Your task to perform on an android device: Go to eBay Image 0: 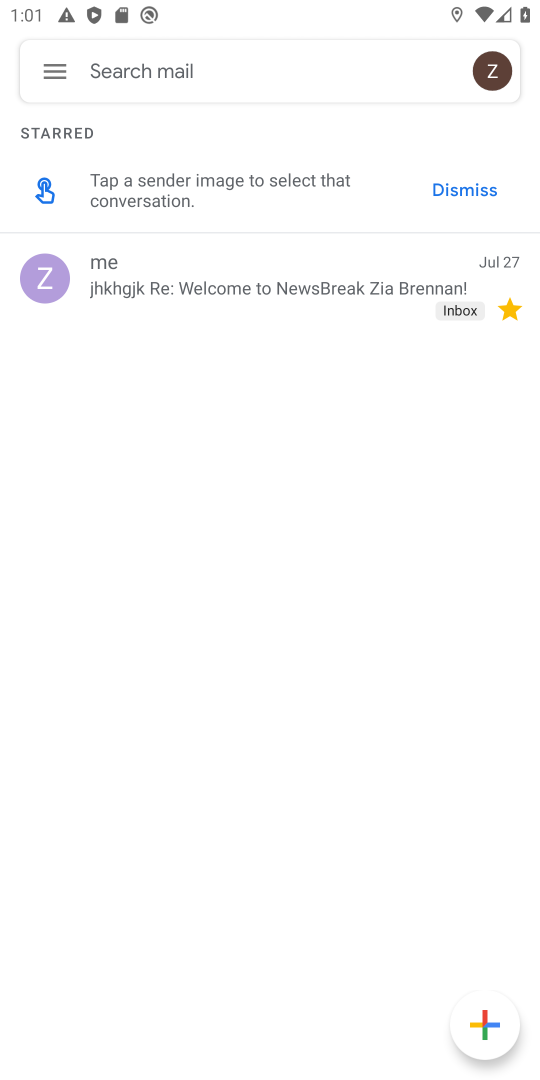
Step 0: press home button
Your task to perform on an android device: Go to eBay Image 1: 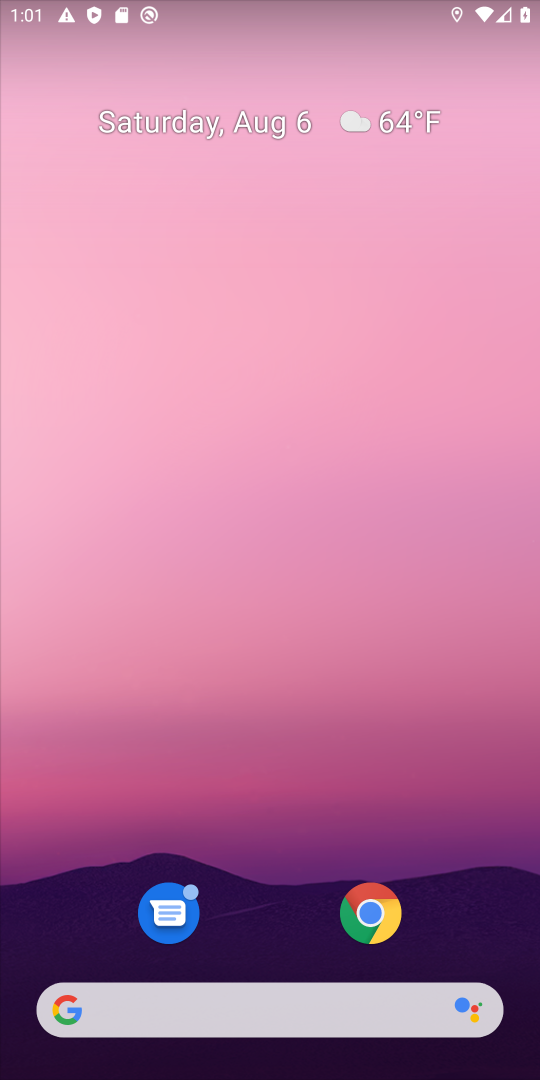
Step 1: drag from (441, 915) to (474, 244)
Your task to perform on an android device: Go to eBay Image 2: 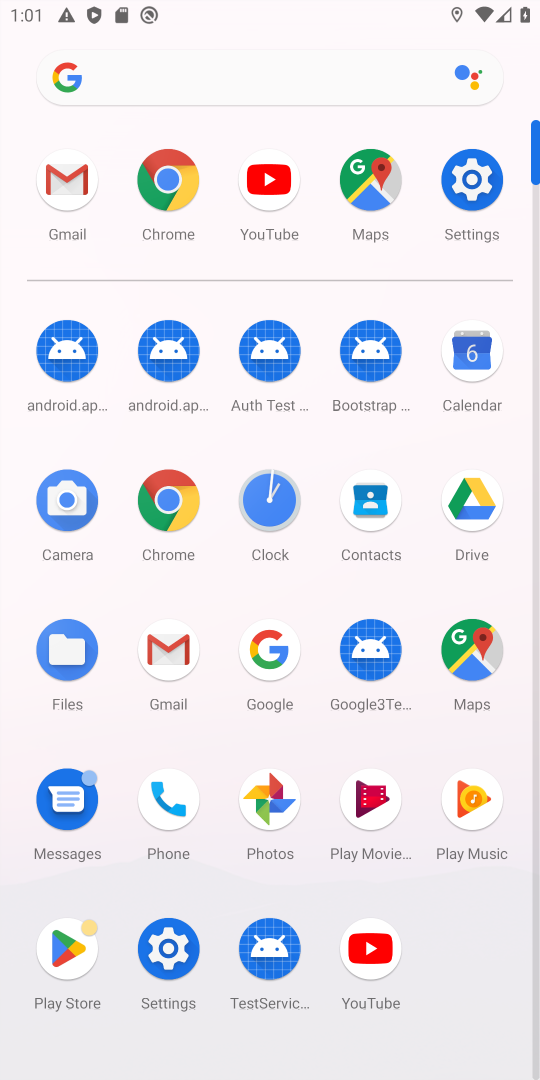
Step 2: click (167, 500)
Your task to perform on an android device: Go to eBay Image 3: 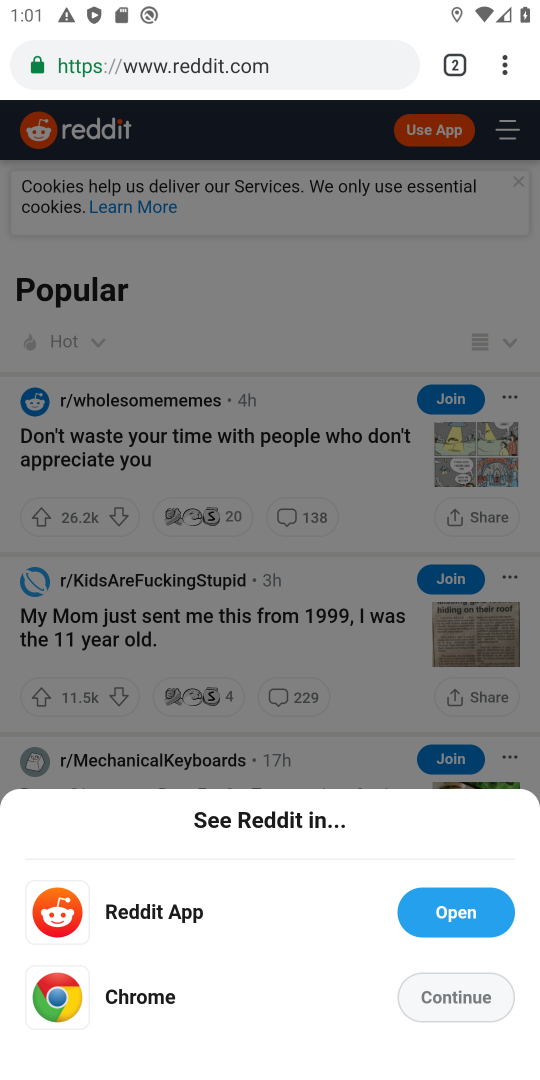
Step 3: click (301, 54)
Your task to perform on an android device: Go to eBay Image 4: 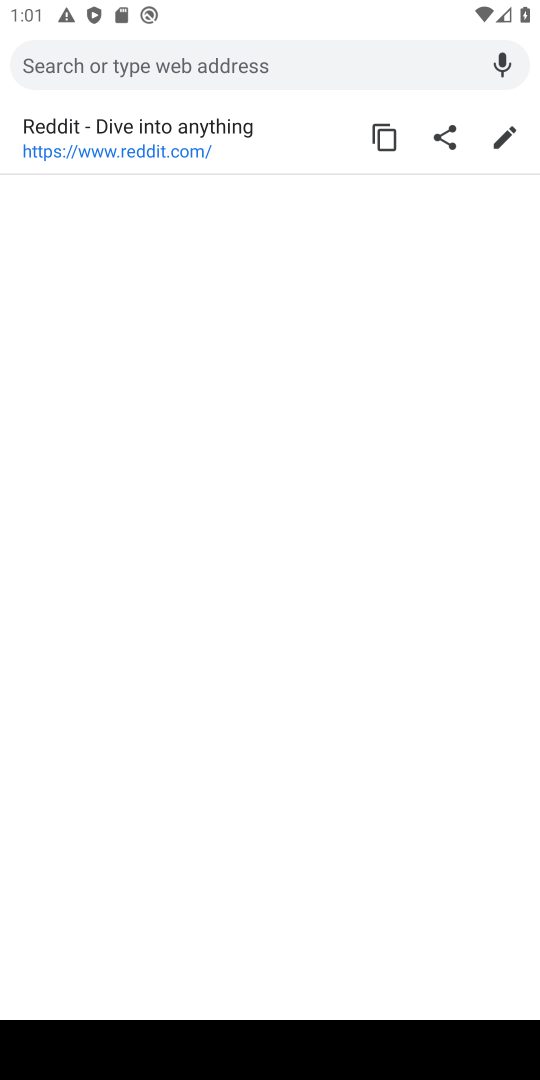
Step 4: type "ebay"
Your task to perform on an android device: Go to eBay Image 5: 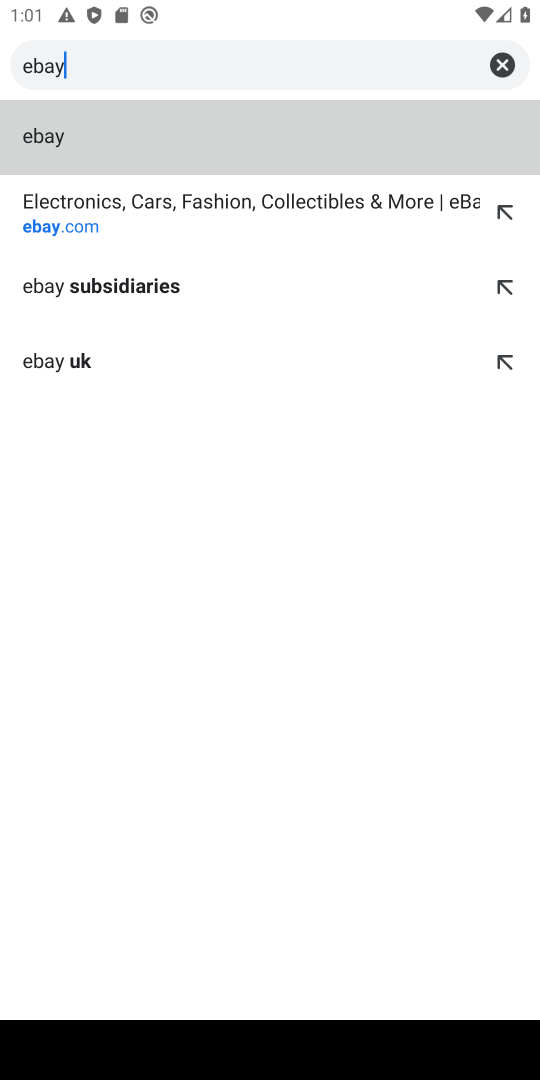
Step 5: click (204, 134)
Your task to perform on an android device: Go to eBay Image 6: 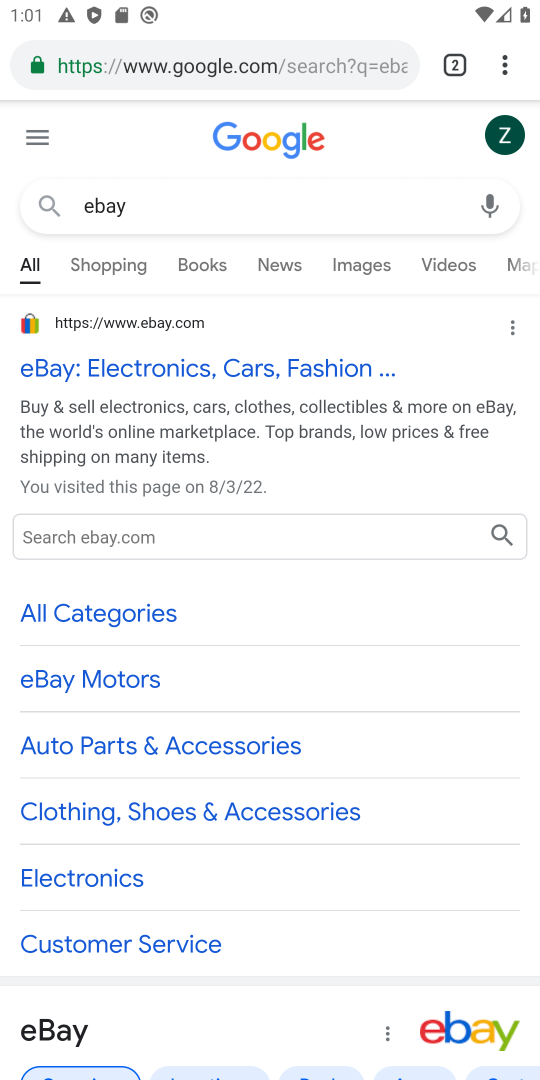
Step 6: task complete